Your task to perform on an android device: change the clock display to digital Image 0: 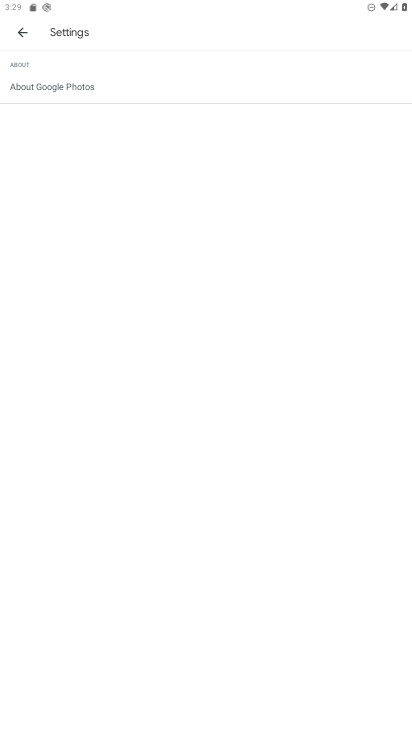
Step 0: press home button
Your task to perform on an android device: change the clock display to digital Image 1: 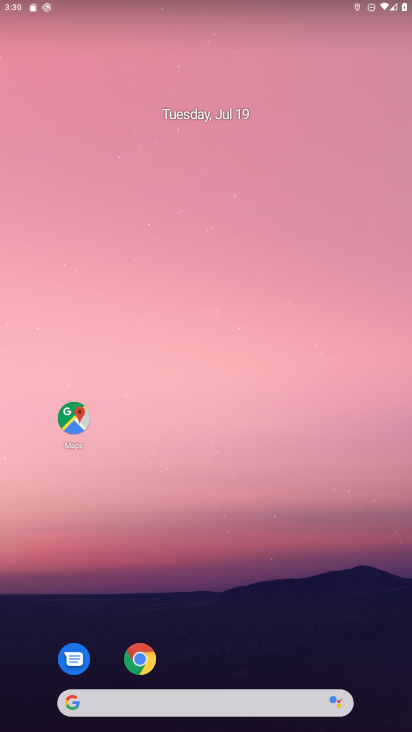
Step 1: drag from (226, 646) to (226, 251)
Your task to perform on an android device: change the clock display to digital Image 2: 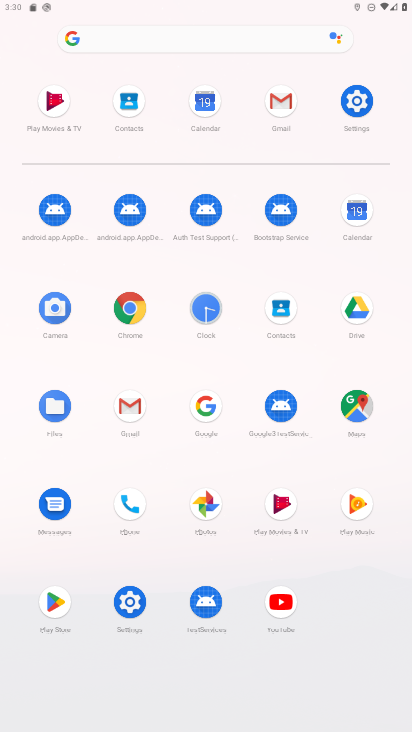
Step 2: click (208, 319)
Your task to perform on an android device: change the clock display to digital Image 3: 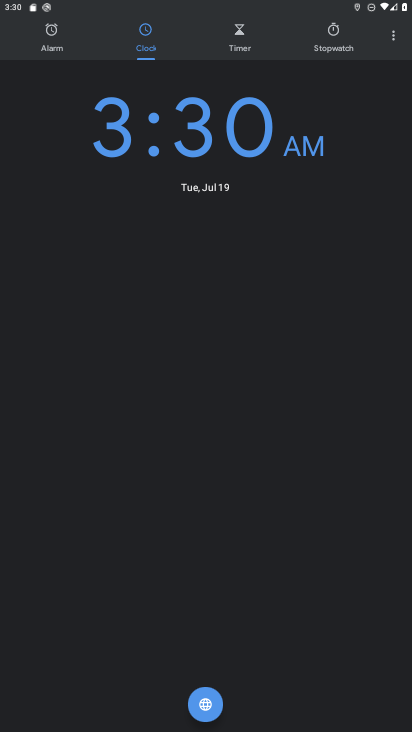
Step 3: click (390, 46)
Your task to perform on an android device: change the clock display to digital Image 4: 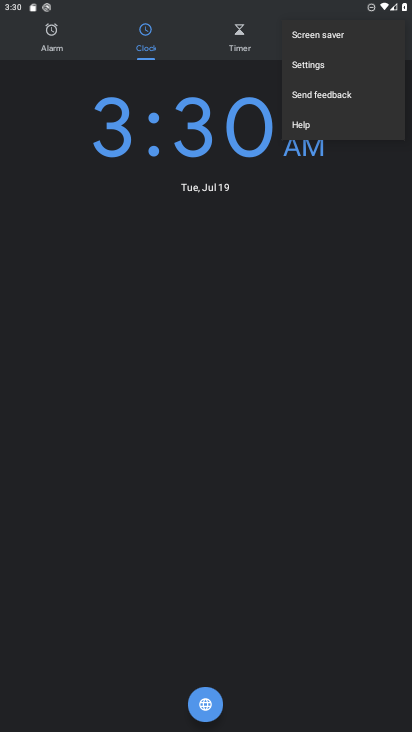
Step 4: click (325, 66)
Your task to perform on an android device: change the clock display to digital Image 5: 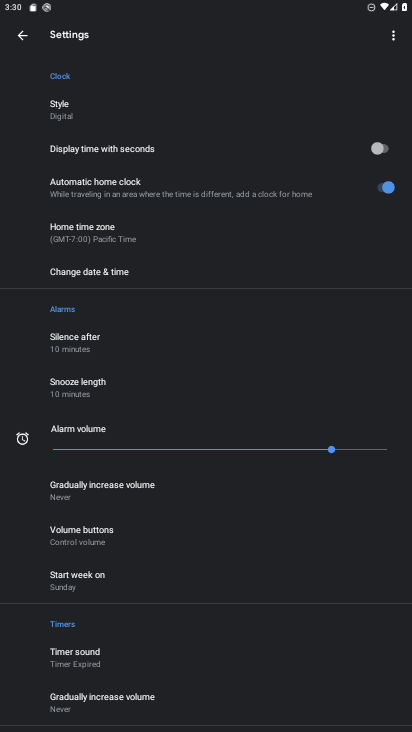
Step 5: click (79, 112)
Your task to perform on an android device: change the clock display to digital Image 6: 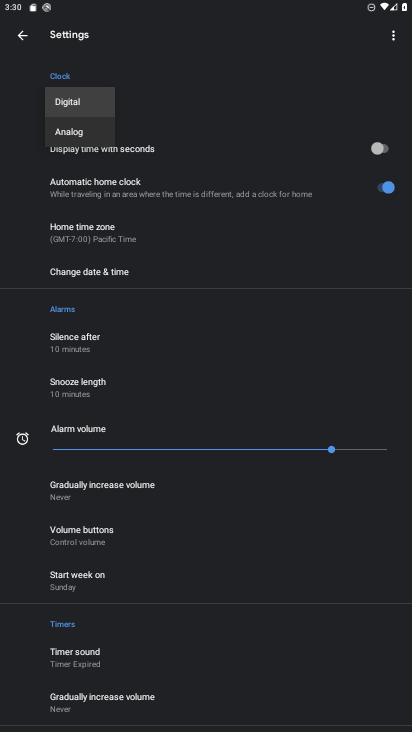
Step 6: click (90, 105)
Your task to perform on an android device: change the clock display to digital Image 7: 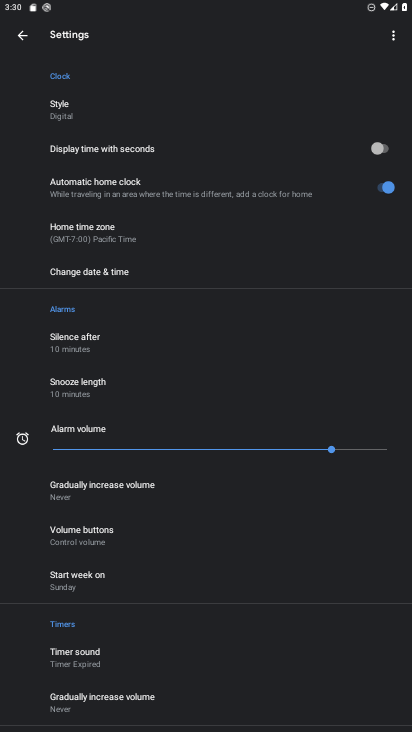
Step 7: task complete